Your task to perform on an android device: Search for Italian restaurants on Maps Image 0: 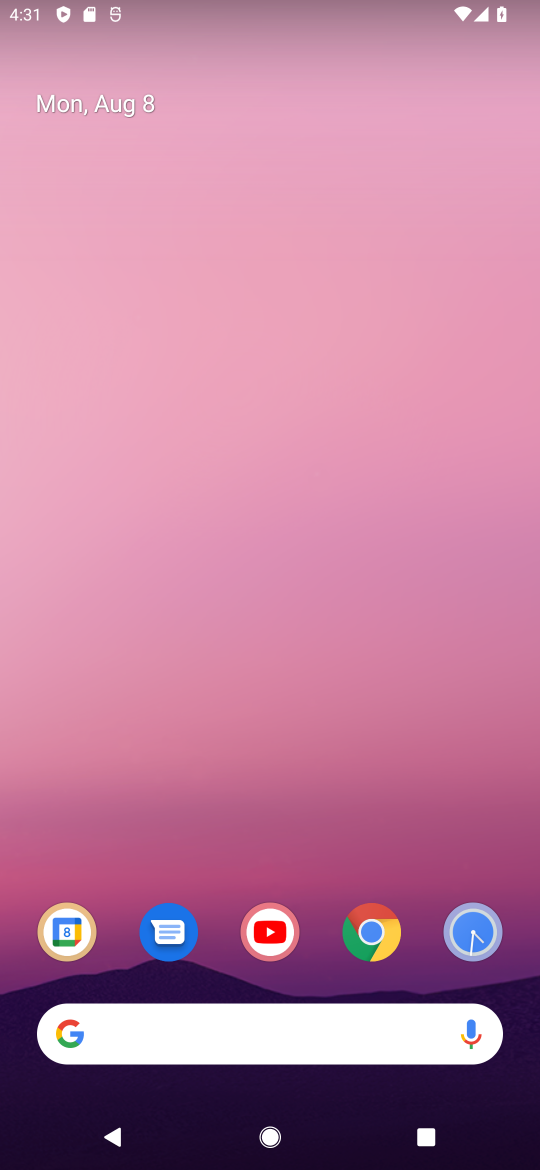
Step 0: drag from (349, 473) to (436, 78)
Your task to perform on an android device: Search for Italian restaurants on Maps Image 1: 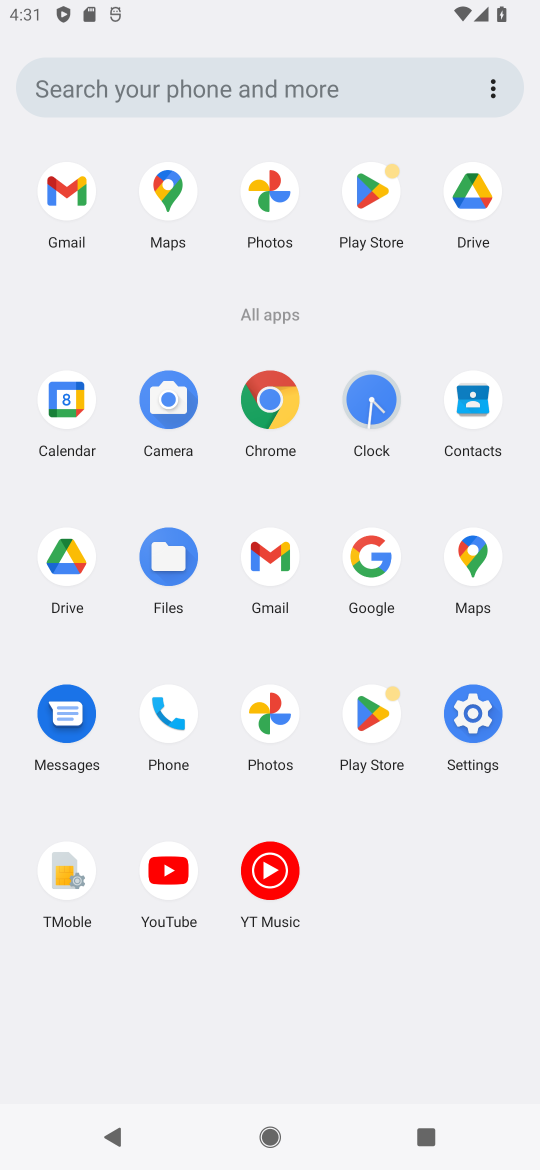
Step 1: click (168, 177)
Your task to perform on an android device: Search for Italian restaurants on Maps Image 2: 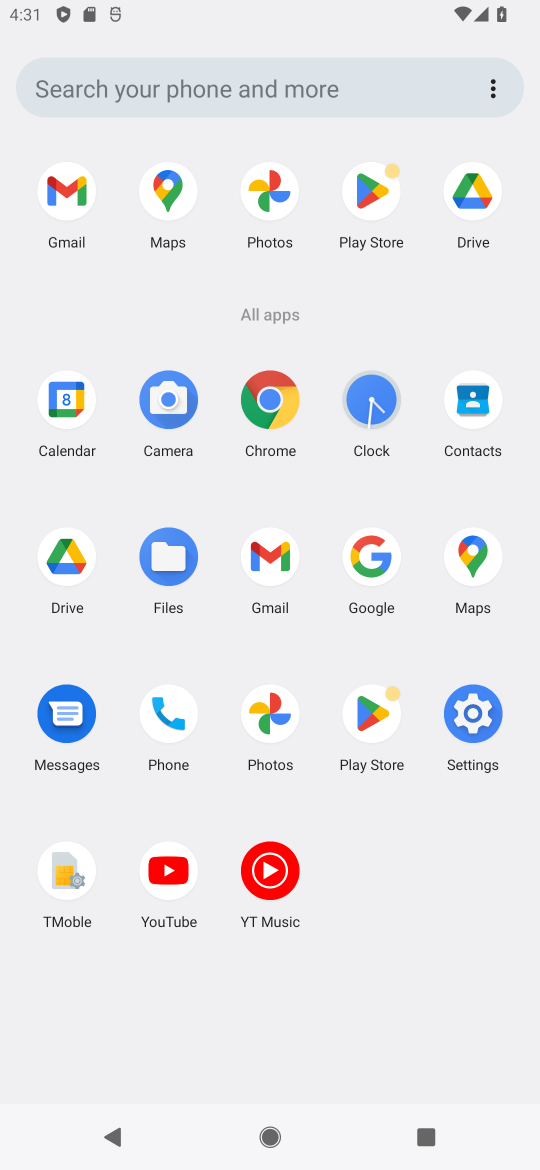
Step 2: click (168, 177)
Your task to perform on an android device: Search for Italian restaurants on Maps Image 3: 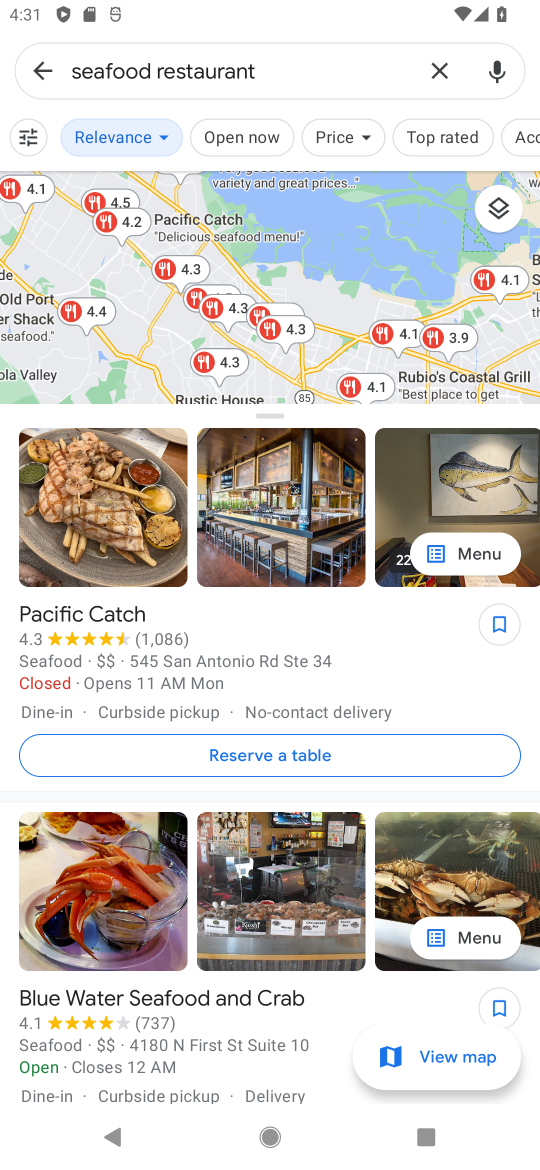
Step 3: click (447, 74)
Your task to perform on an android device: Search for Italian restaurants on Maps Image 4: 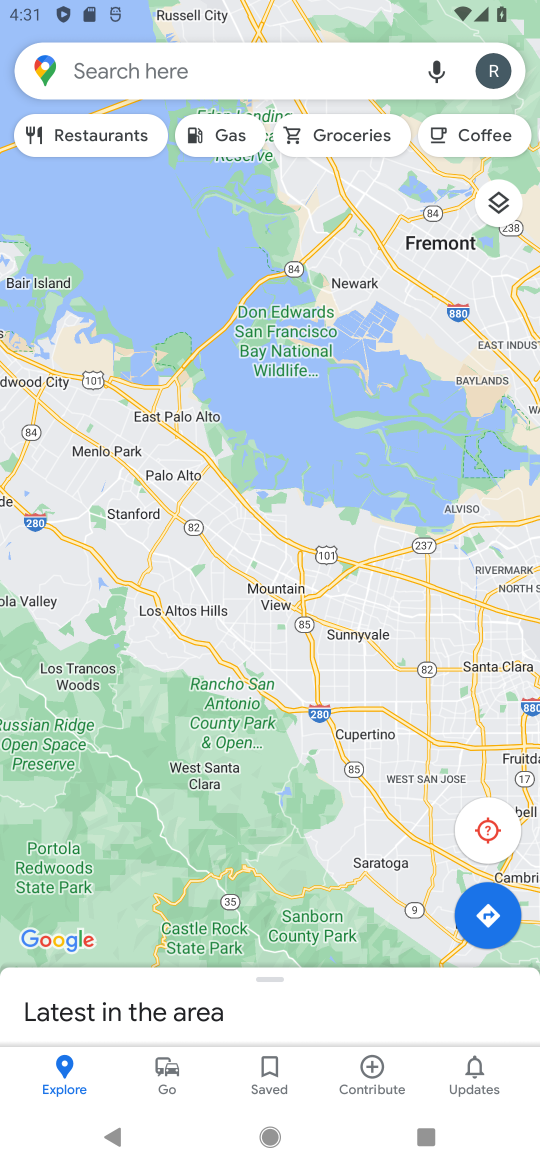
Step 4: click (292, 60)
Your task to perform on an android device: Search for Italian restaurants on Maps Image 5: 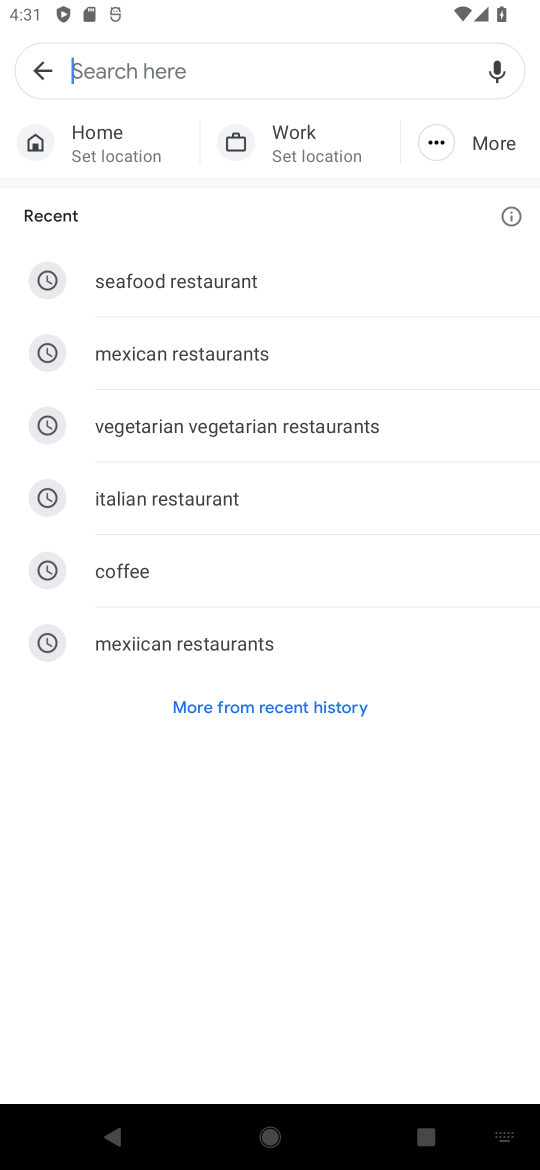
Step 5: type "italian "
Your task to perform on an android device: Search for Italian restaurants on Maps Image 6: 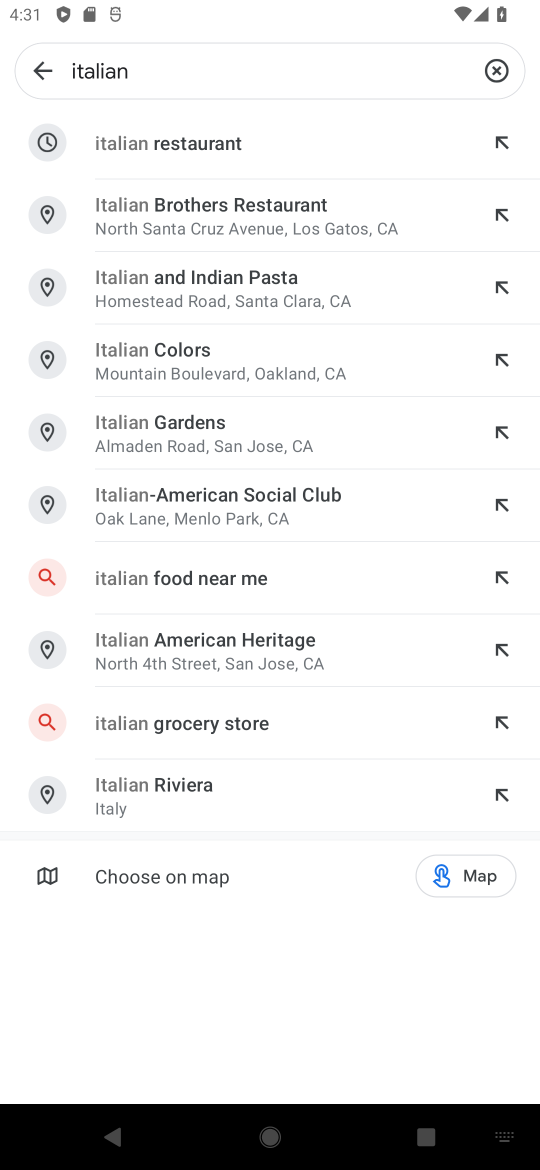
Step 6: click (261, 133)
Your task to perform on an android device: Search for Italian restaurants on Maps Image 7: 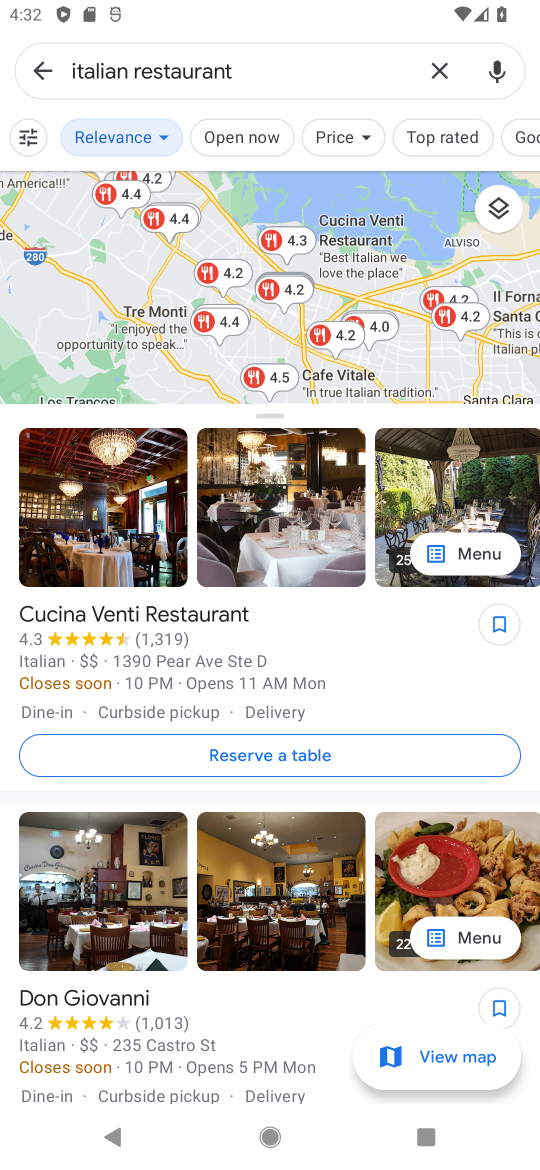
Step 7: task complete